Your task to perform on an android device: What's the weather today? Image 0: 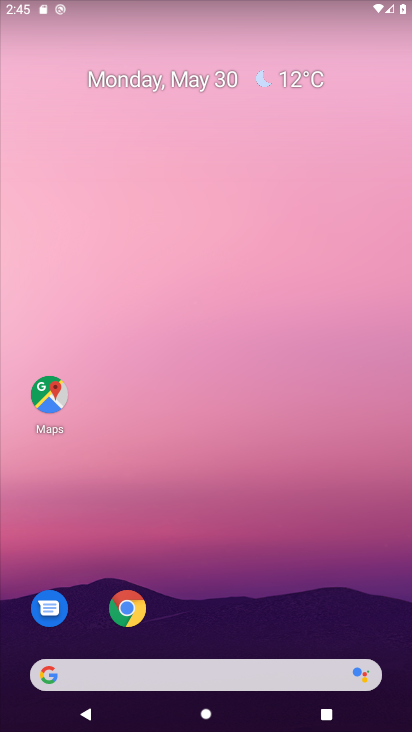
Step 0: click (293, 72)
Your task to perform on an android device: What's the weather today? Image 1: 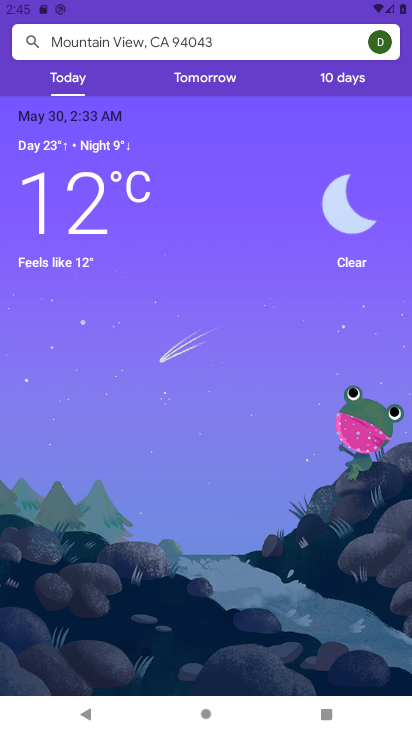
Step 1: task complete